Your task to perform on an android device: Go to notification settings Image 0: 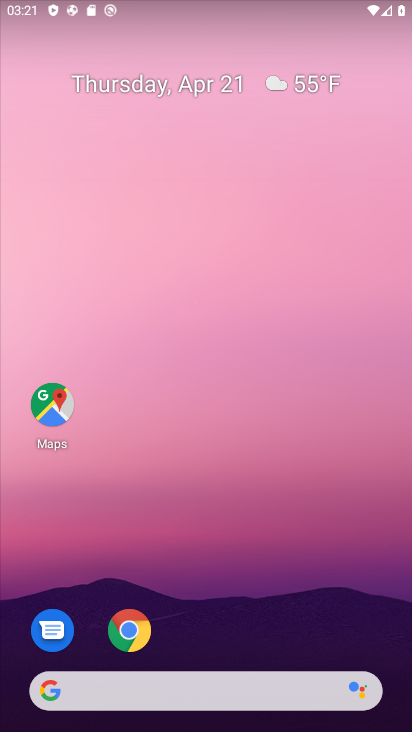
Step 0: drag from (218, 638) to (355, 0)
Your task to perform on an android device: Go to notification settings Image 1: 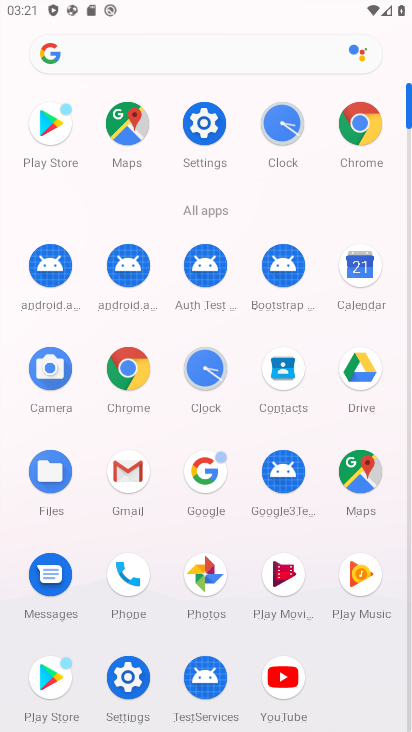
Step 1: click (123, 691)
Your task to perform on an android device: Go to notification settings Image 2: 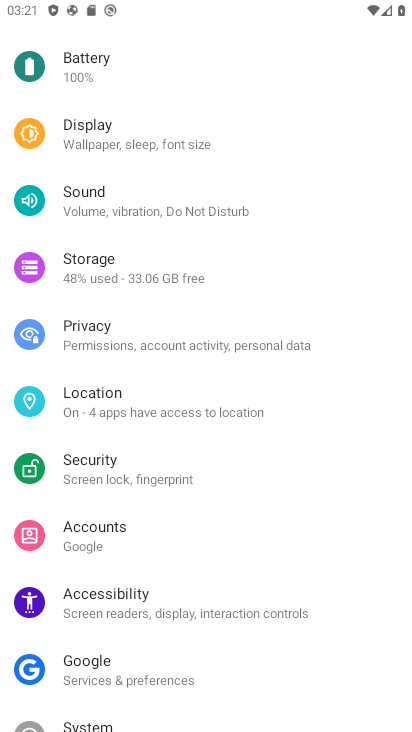
Step 2: drag from (137, 625) to (125, 718)
Your task to perform on an android device: Go to notification settings Image 3: 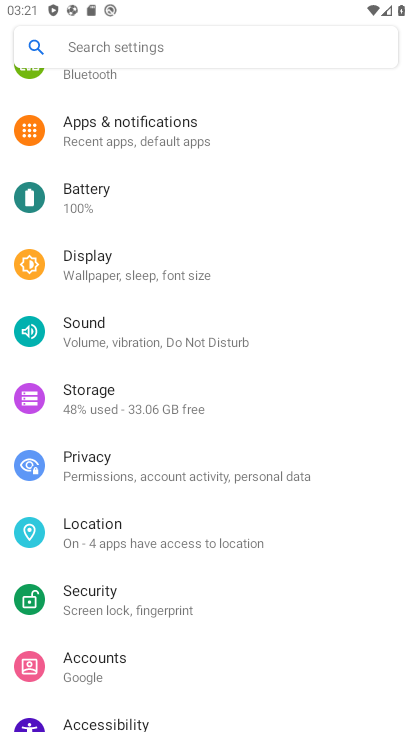
Step 3: drag from (166, 168) to (143, 510)
Your task to perform on an android device: Go to notification settings Image 4: 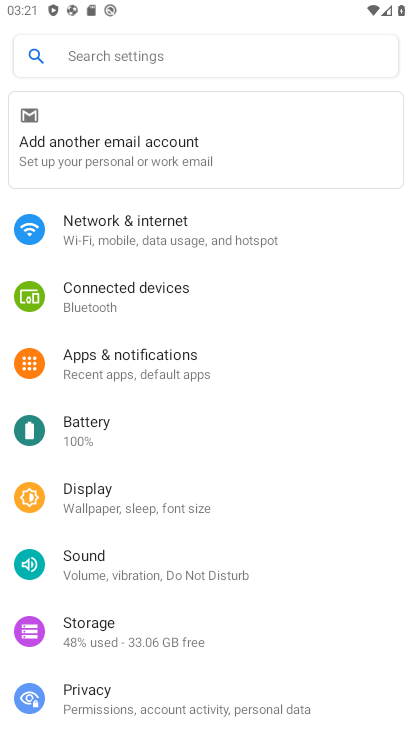
Step 4: click (123, 367)
Your task to perform on an android device: Go to notification settings Image 5: 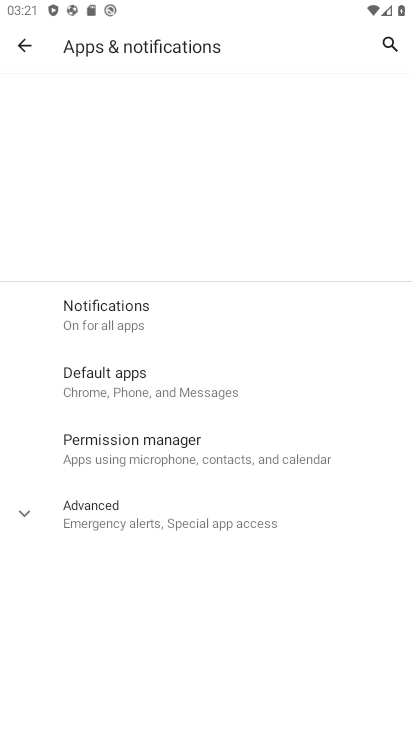
Step 5: click (132, 329)
Your task to perform on an android device: Go to notification settings Image 6: 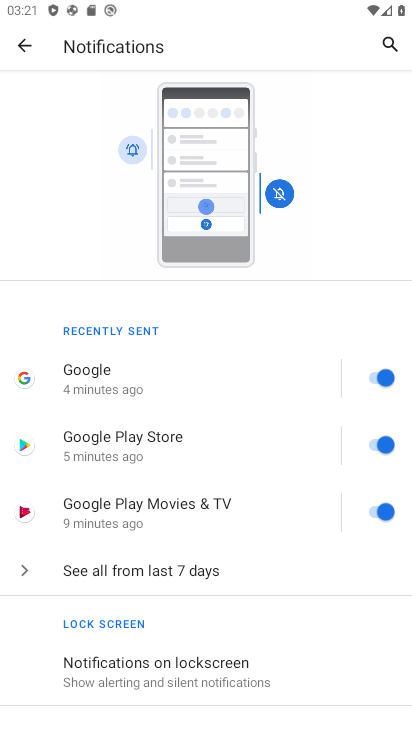
Step 6: task complete